Your task to perform on an android device: install app "Fetch Rewards" Image 0: 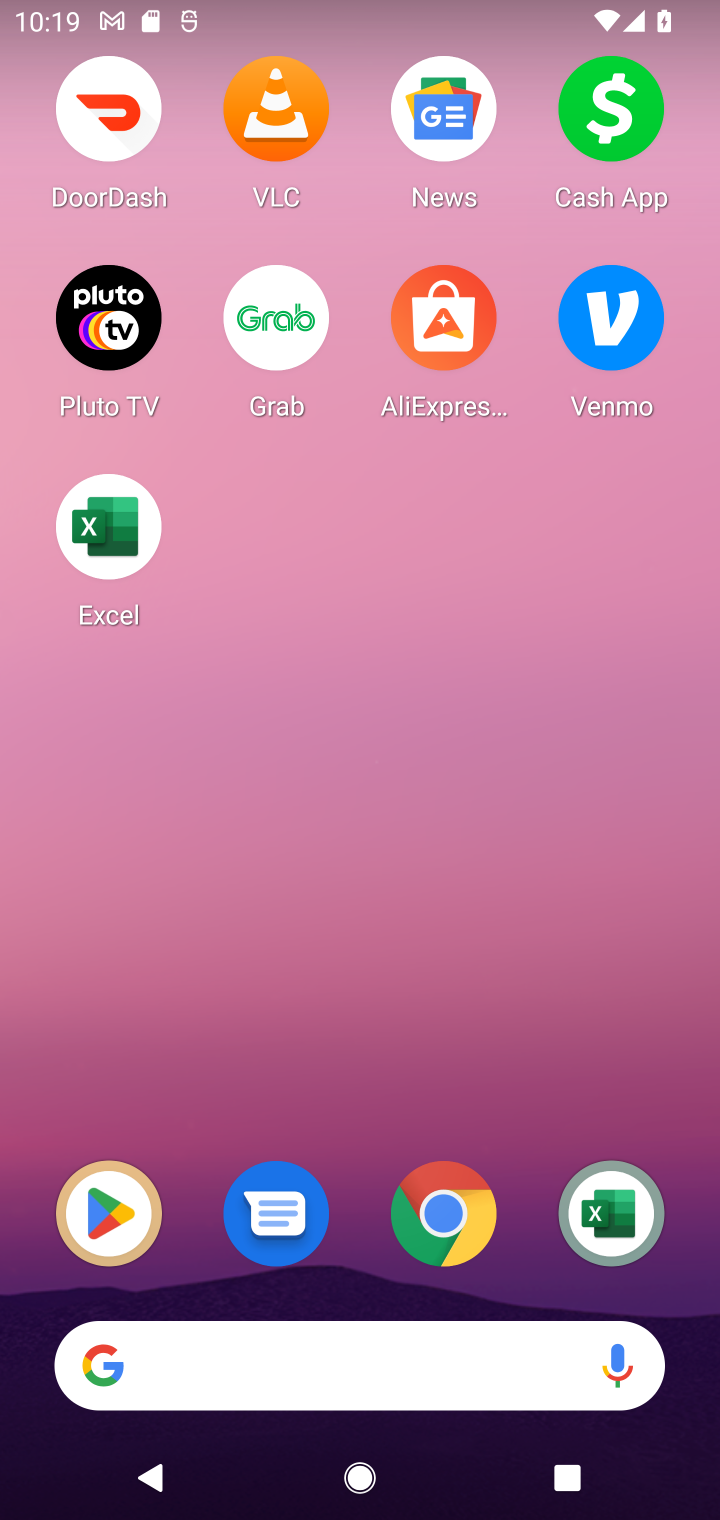
Step 0: click (112, 1228)
Your task to perform on an android device: install app "Fetch Rewards" Image 1: 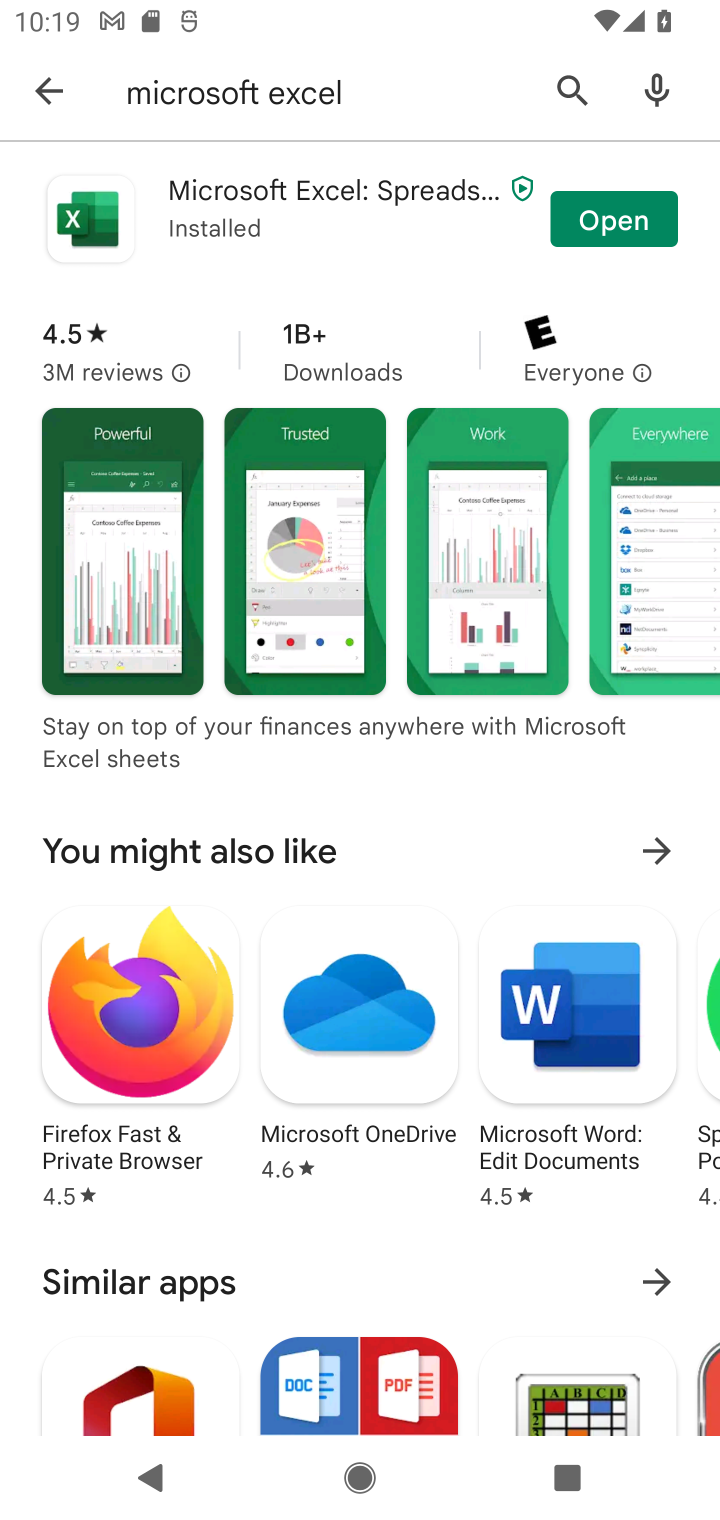
Step 1: click (32, 103)
Your task to perform on an android device: install app "Fetch Rewards" Image 2: 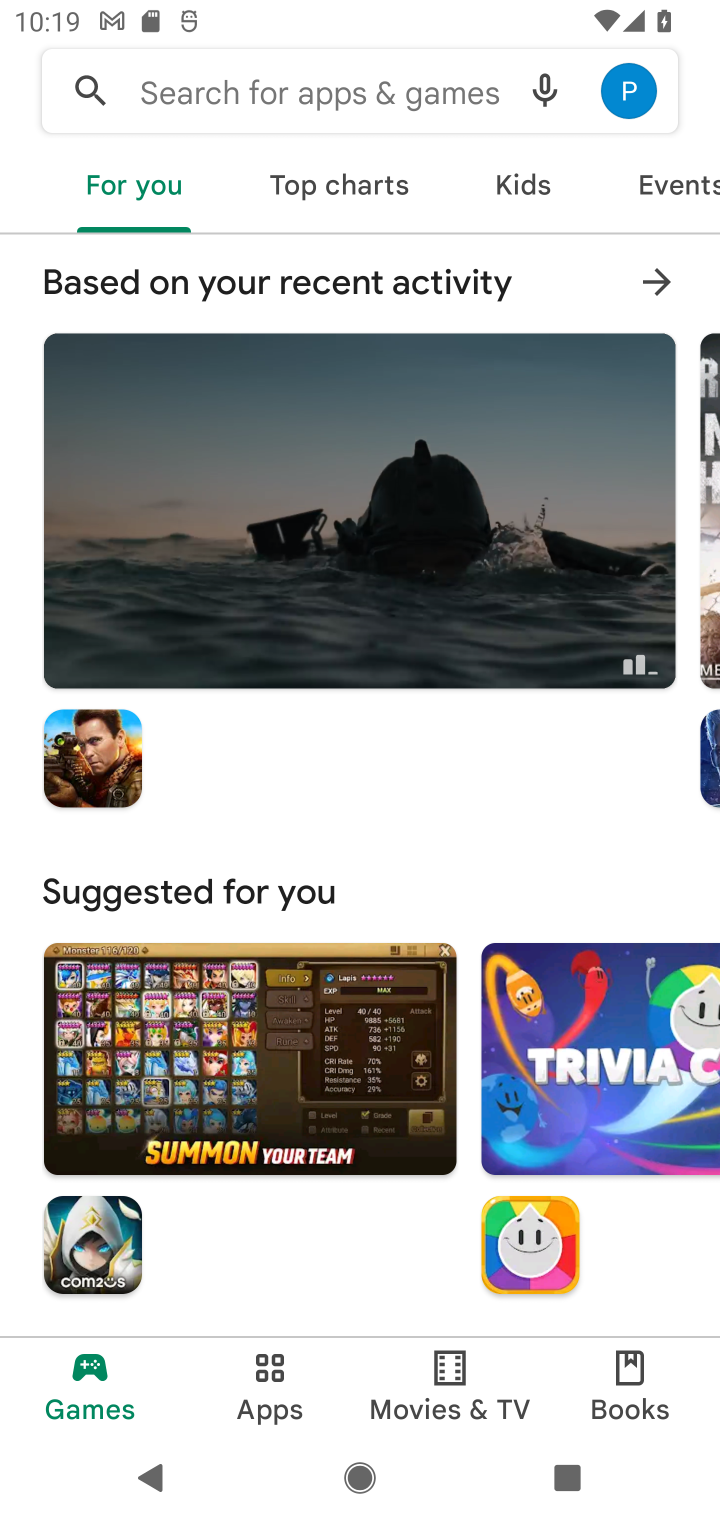
Step 2: click (337, 67)
Your task to perform on an android device: install app "Fetch Rewards" Image 3: 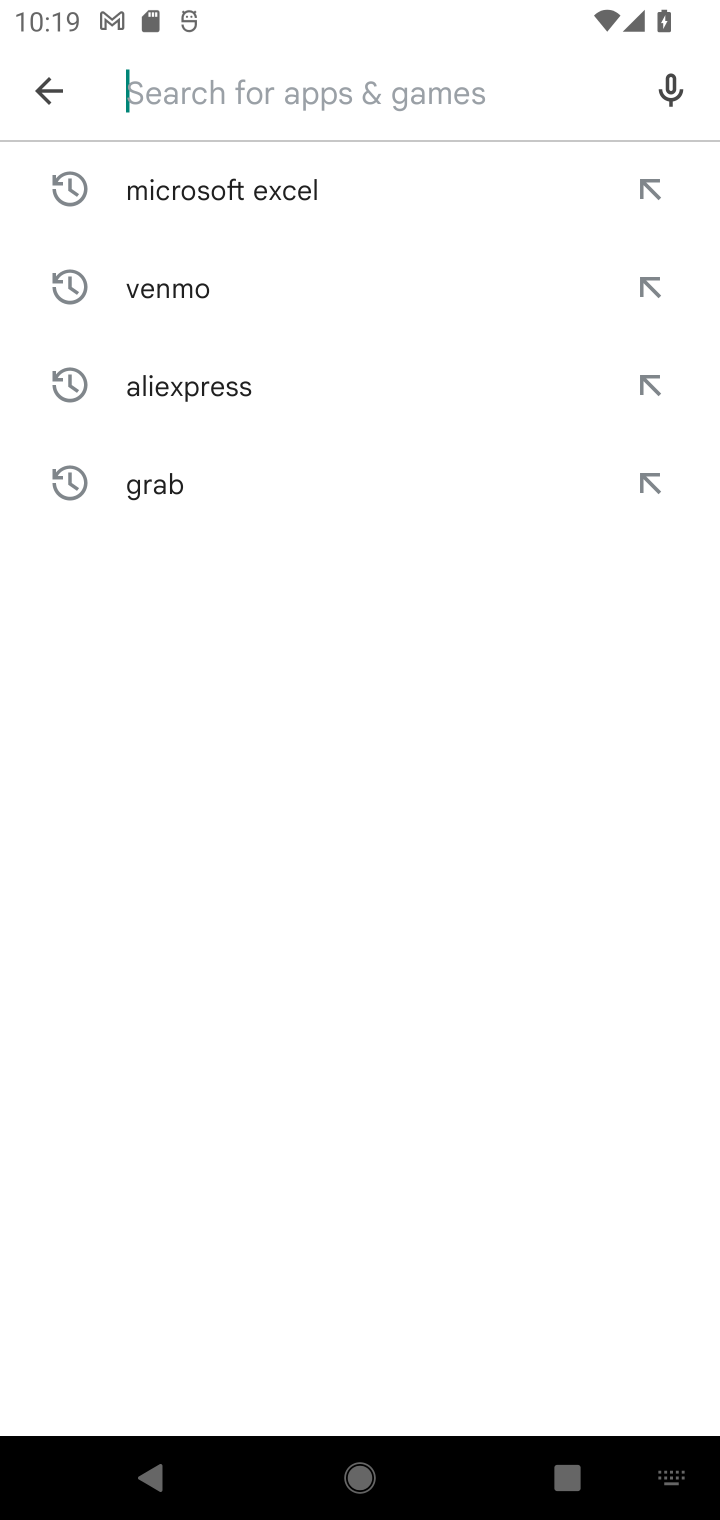
Step 3: type "Fetch Rewards"
Your task to perform on an android device: install app "Fetch Rewards" Image 4: 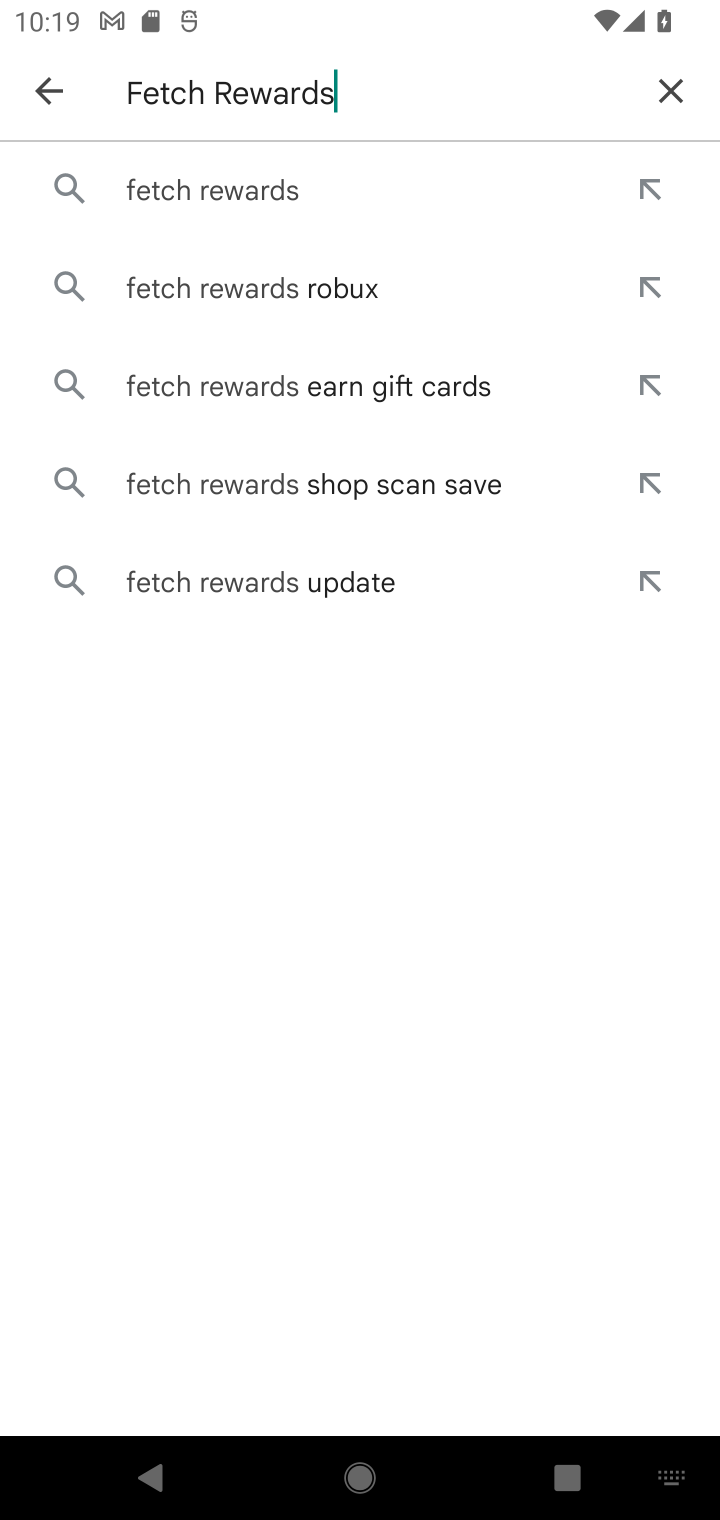
Step 4: click (216, 189)
Your task to perform on an android device: install app "Fetch Rewards" Image 5: 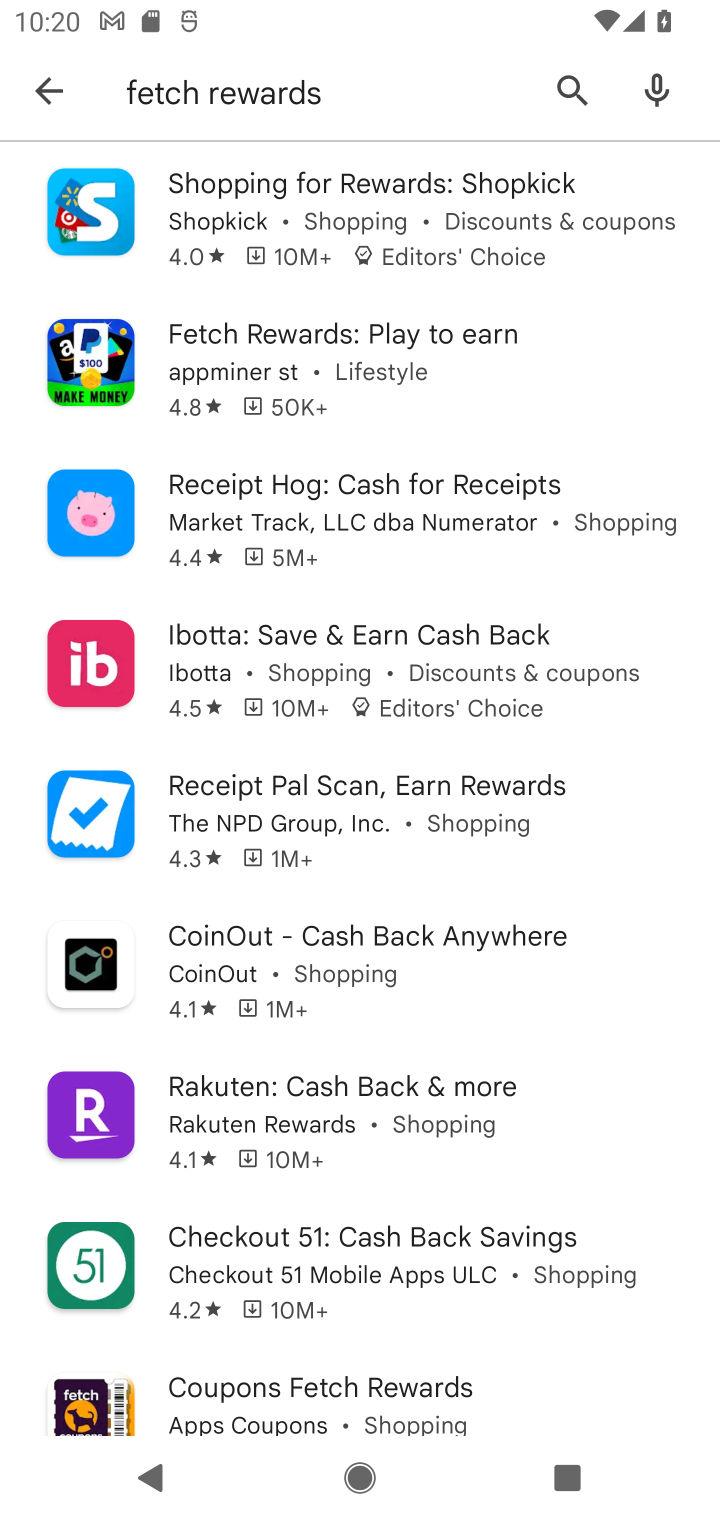
Step 5: click (348, 355)
Your task to perform on an android device: install app "Fetch Rewards" Image 6: 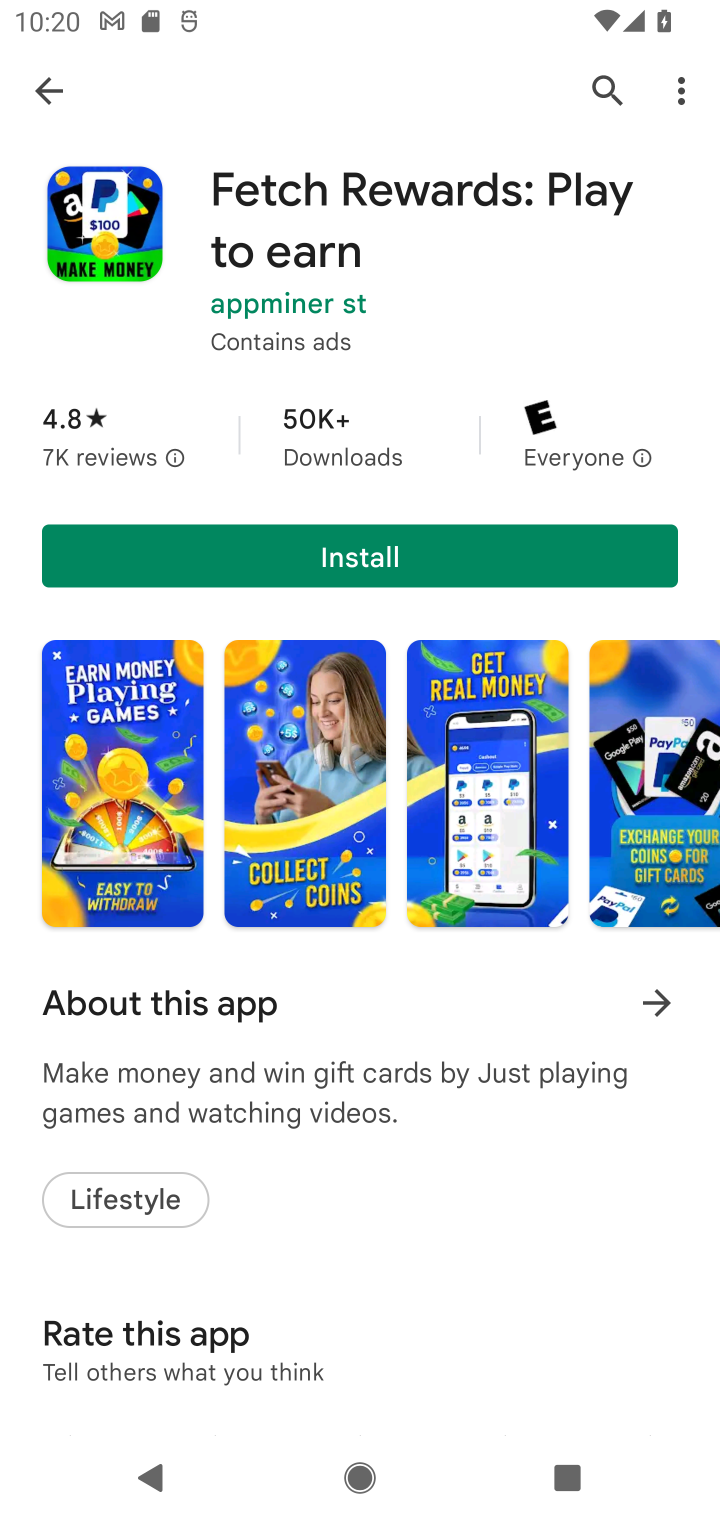
Step 6: click (310, 549)
Your task to perform on an android device: install app "Fetch Rewards" Image 7: 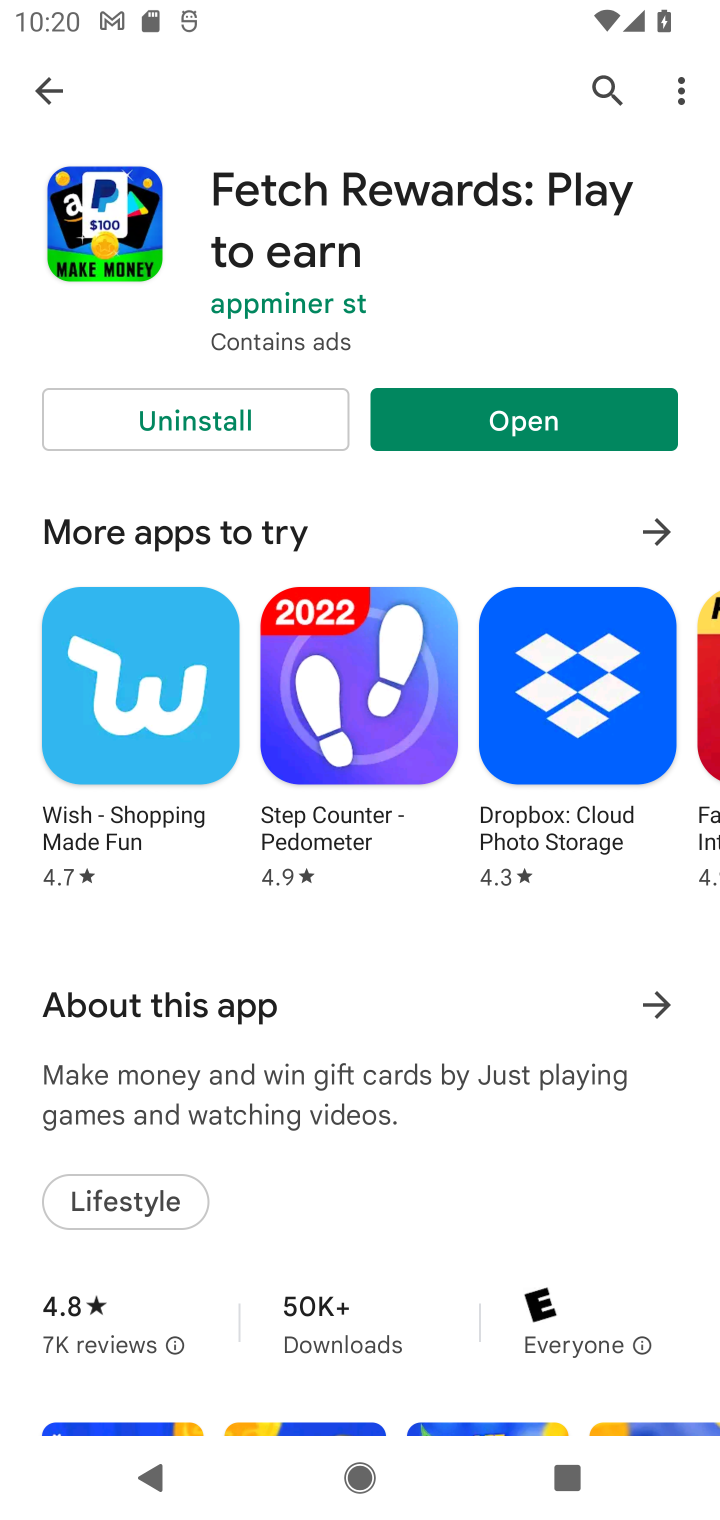
Step 7: click (504, 420)
Your task to perform on an android device: install app "Fetch Rewards" Image 8: 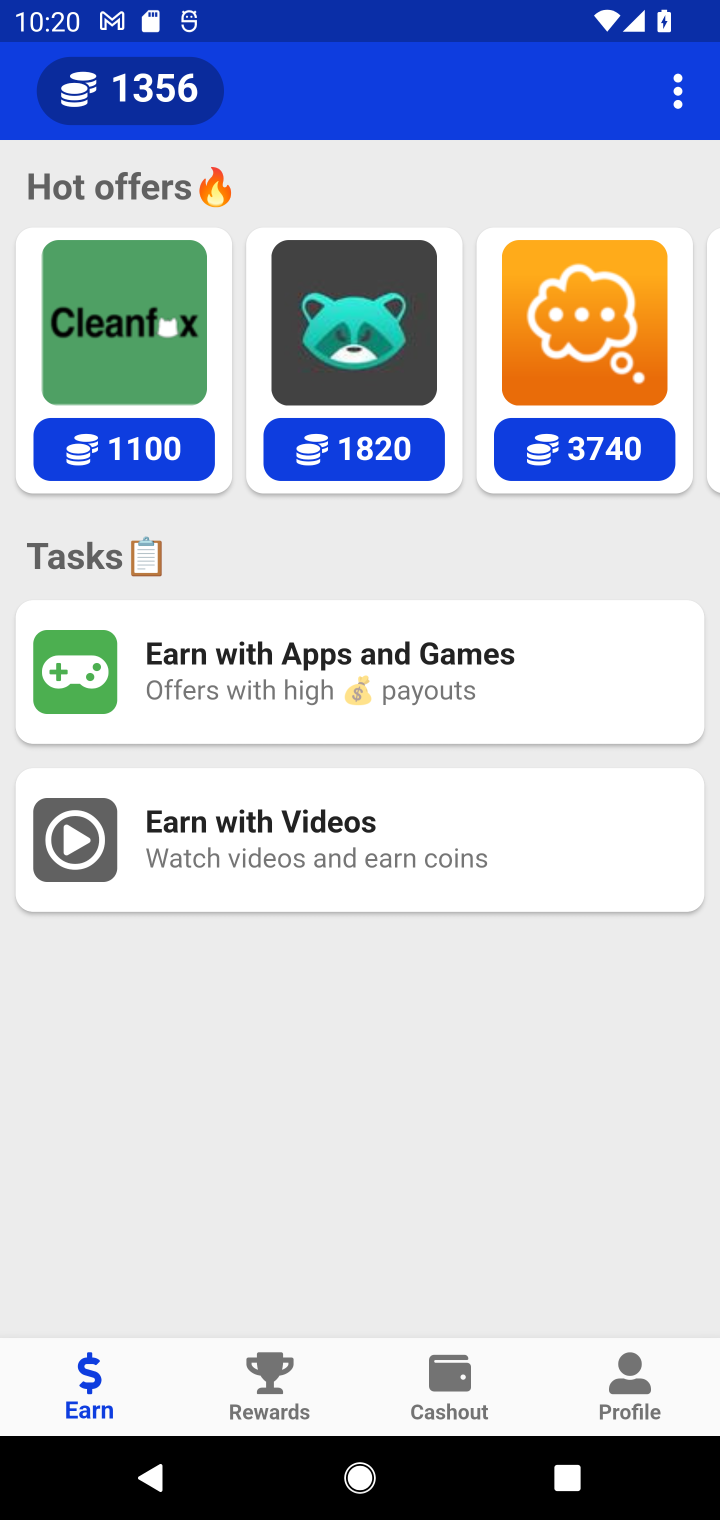
Step 8: task complete